Your task to perform on an android device: read, delete, or share a saved page in the chrome app Image 0: 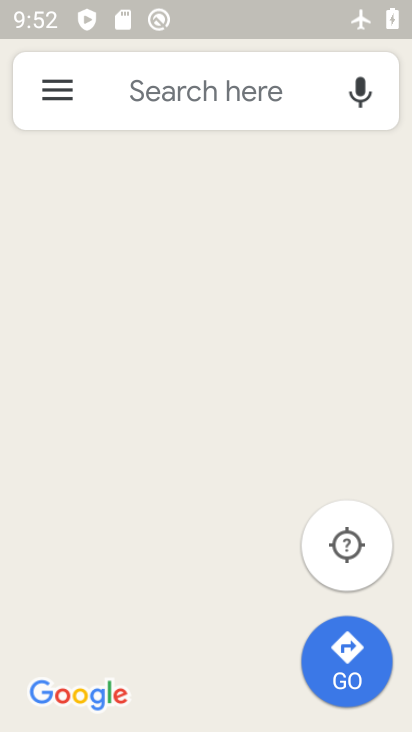
Step 0: press home button
Your task to perform on an android device: read, delete, or share a saved page in the chrome app Image 1: 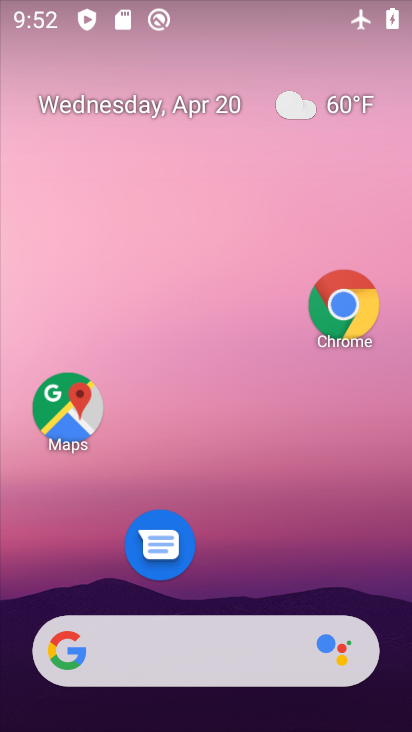
Step 1: drag from (243, 521) to (277, 177)
Your task to perform on an android device: read, delete, or share a saved page in the chrome app Image 2: 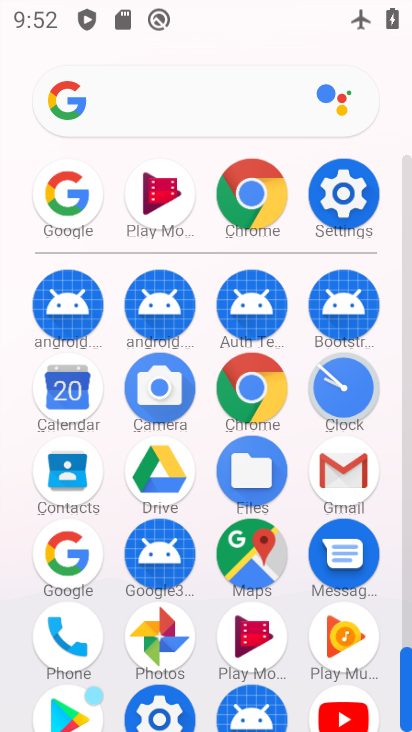
Step 2: click (238, 189)
Your task to perform on an android device: read, delete, or share a saved page in the chrome app Image 3: 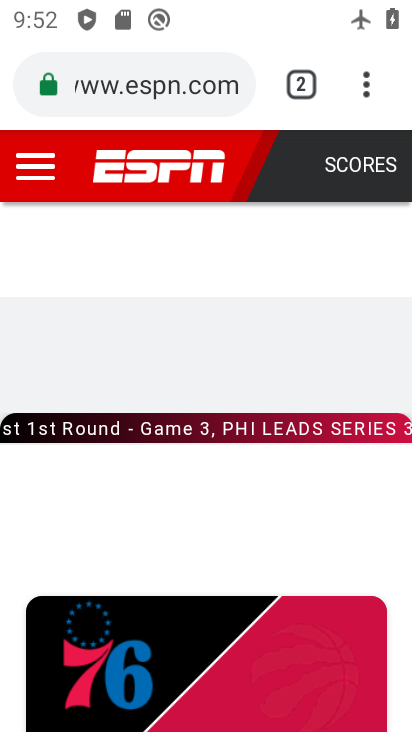
Step 3: click (365, 86)
Your task to perform on an android device: read, delete, or share a saved page in the chrome app Image 4: 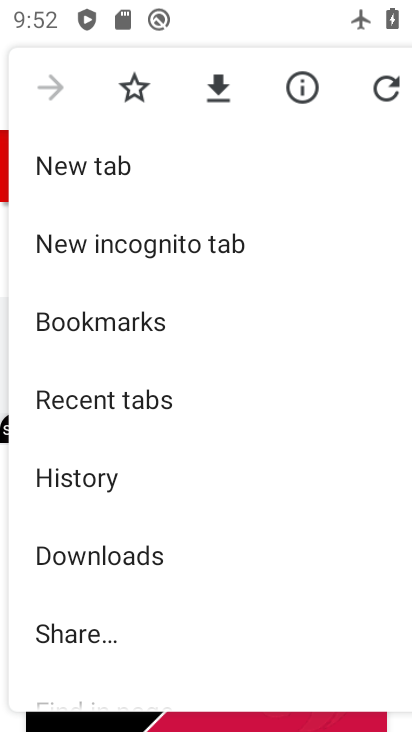
Step 4: click (111, 557)
Your task to perform on an android device: read, delete, or share a saved page in the chrome app Image 5: 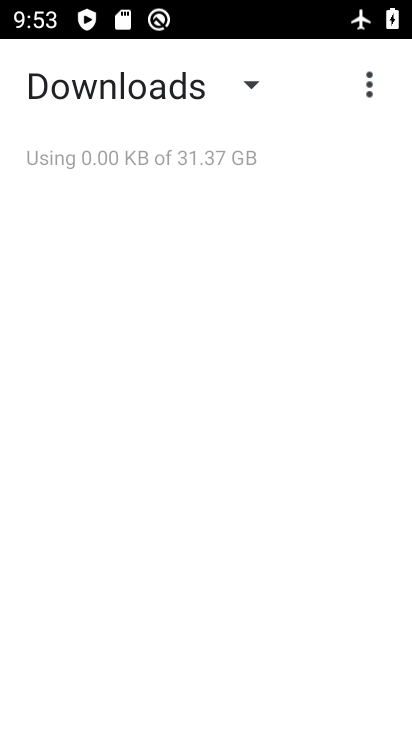
Step 5: click (199, 83)
Your task to perform on an android device: read, delete, or share a saved page in the chrome app Image 6: 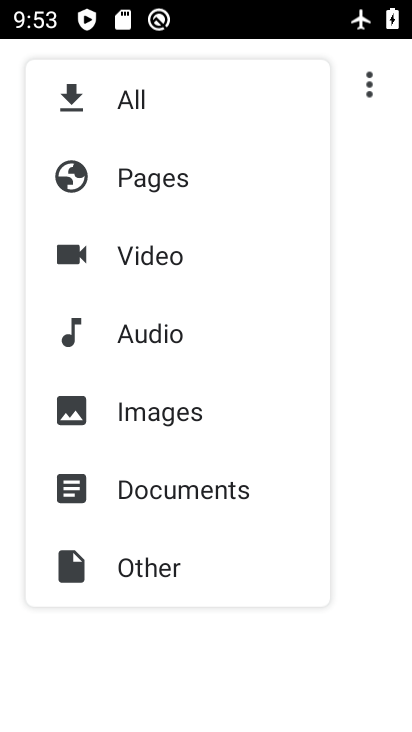
Step 6: click (172, 196)
Your task to perform on an android device: read, delete, or share a saved page in the chrome app Image 7: 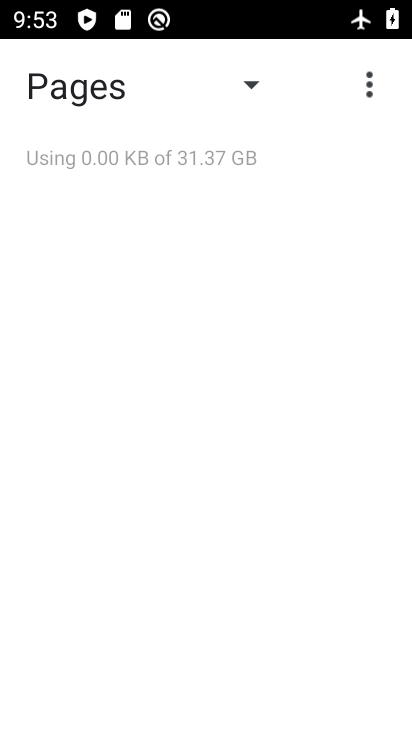
Step 7: task complete